Your task to perform on an android device: turn on notifications settings in the gmail app Image 0: 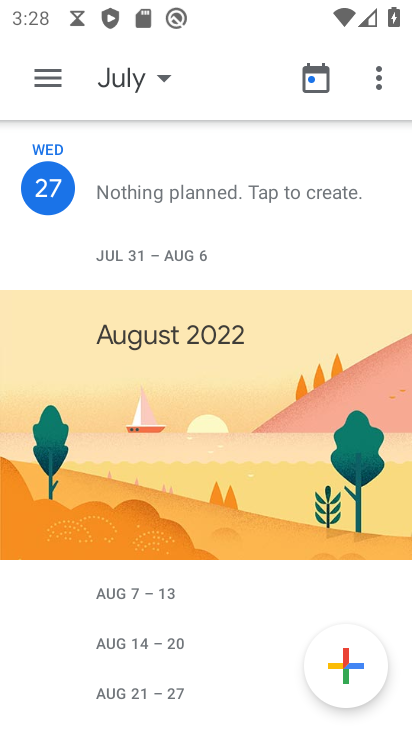
Step 0: press back button
Your task to perform on an android device: turn on notifications settings in the gmail app Image 1: 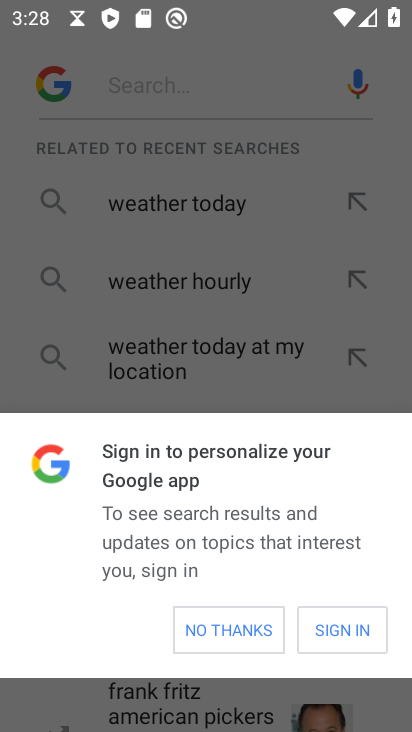
Step 1: press home button
Your task to perform on an android device: turn on notifications settings in the gmail app Image 2: 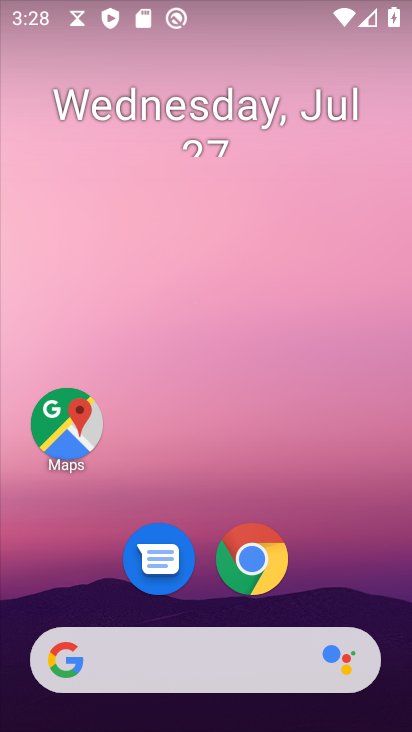
Step 2: drag from (96, 611) to (253, 132)
Your task to perform on an android device: turn on notifications settings in the gmail app Image 3: 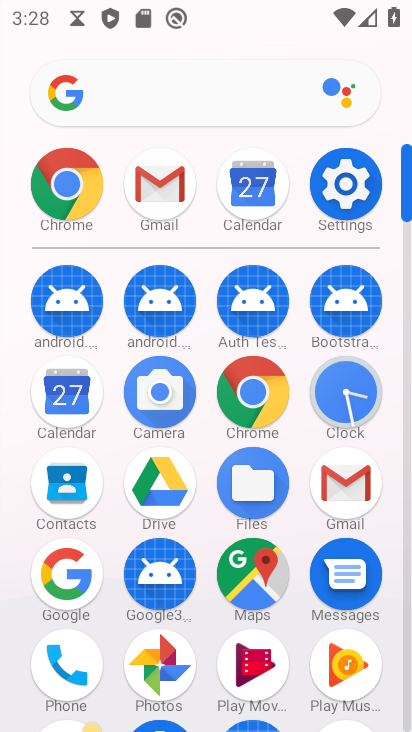
Step 3: click (160, 184)
Your task to perform on an android device: turn on notifications settings in the gmail app Image 4: 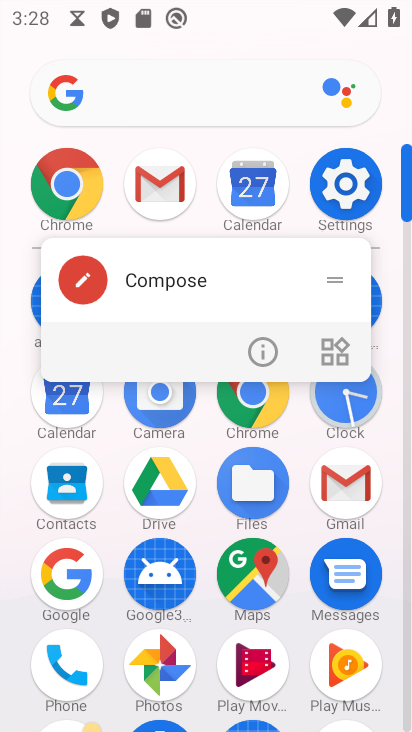
Step 4: click (265, 349)
Your task to perform on an android device: turn on notifications settings in the gmail app Image 5: 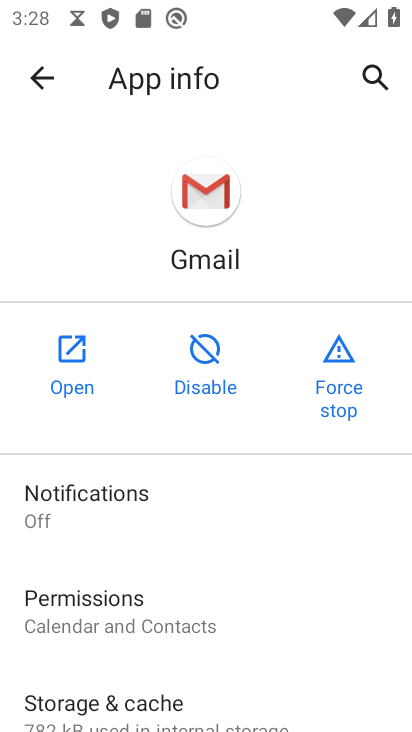
Step 5: click (103, 513)
Your task to perform on an android device: turn on notifications settings in the gmail app Image 6: 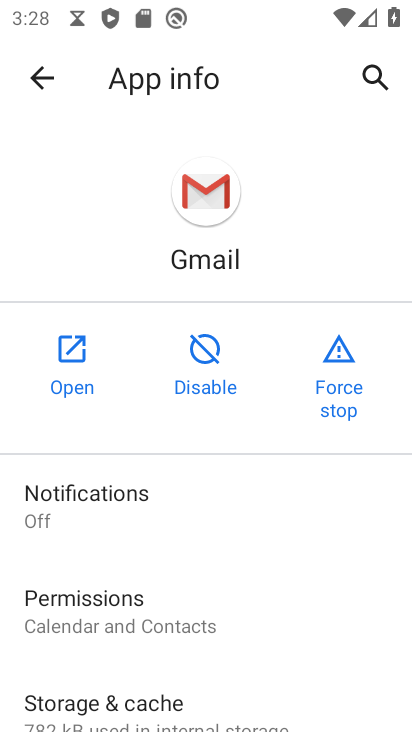
Step 6: drag from (176, 635) to (225, 647)
Your task to perform on an android device: turn on notifications settings in the gmail app Image 7: 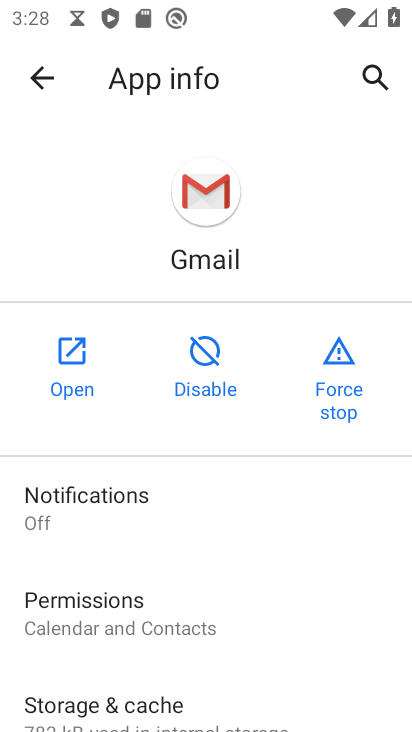
Step 7: click (131, 523)
Your task to perform on an android device: turn on notifications settings in the gmail app Image 8: 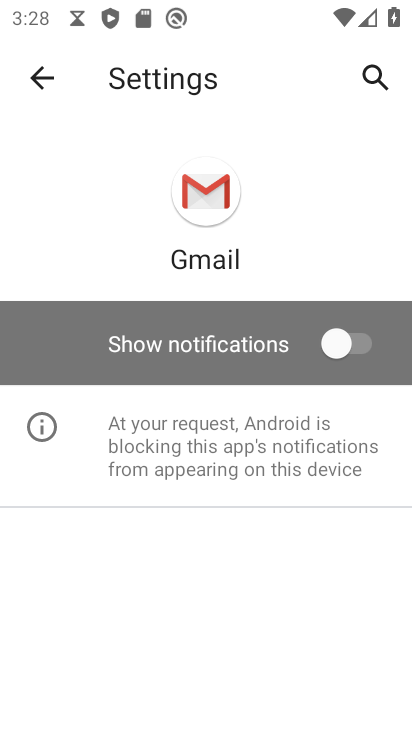
Step 8: click (327, 342)
Your task to perform on an android device: turn on notifications settings in the gmail app Image 9: 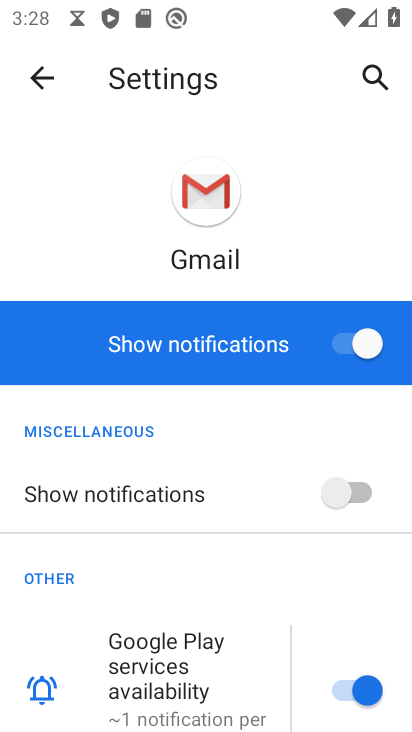
Step 9: task complete